Your task to perform on an android device: Open network settings Image 0: 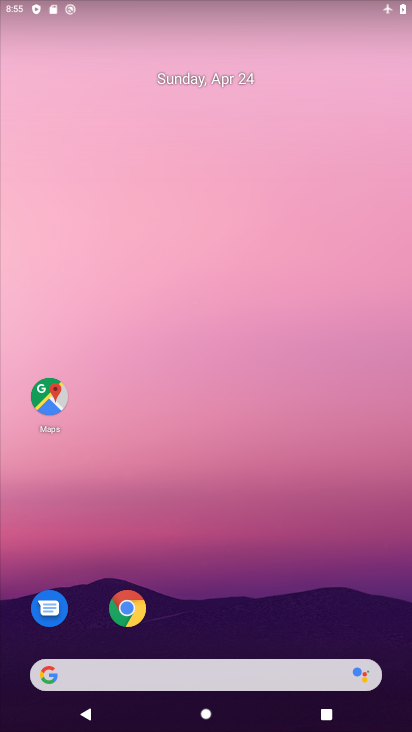
Step 0: drag from (204, 635) to (234, 110)
Your task to perform on an android device: Open network settings Image 1: 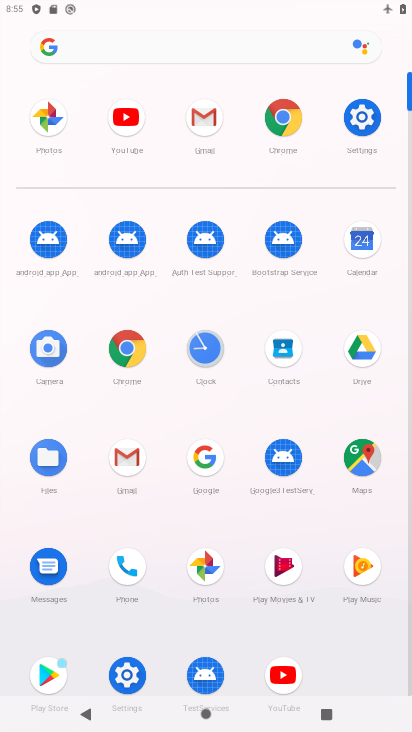
Step 1: click (366, 125)
Your task to perform on an android device: Open network settings Image 2: 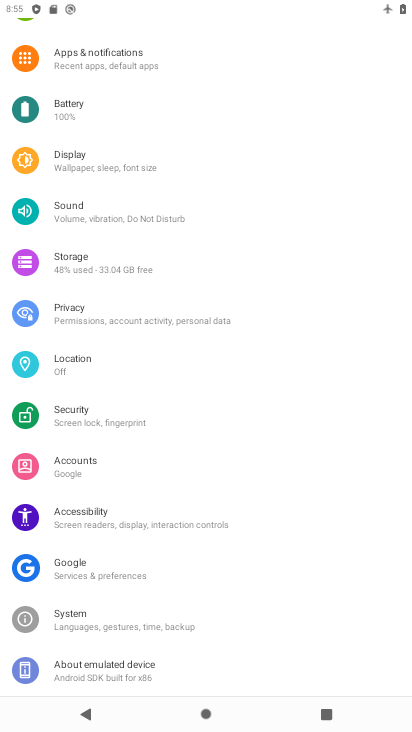
Step 2: drag from (202, 126) to (237, 625)
Your task to perform on an android device: Open network settings Image 3: 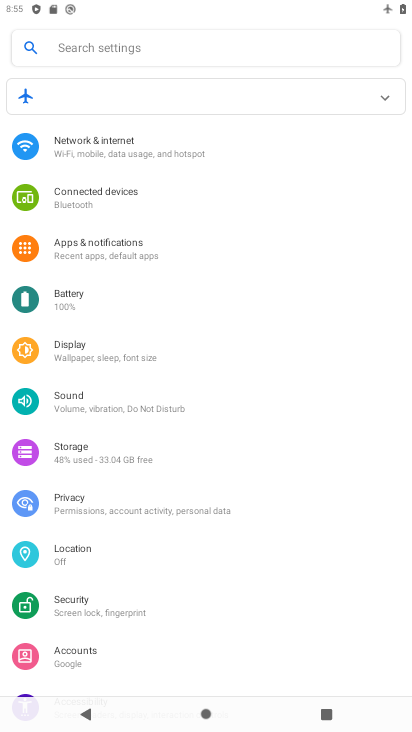
Step 3: click (123, 147)
Your task to perform on an android device: Open network settings Image 4: 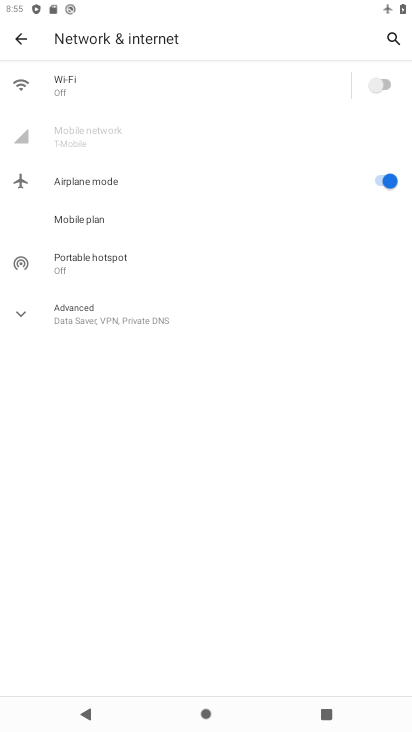
Step 4: task complete